Your task to perform on an android device: Open Youtube and go to the subscriptions tab Image 0: 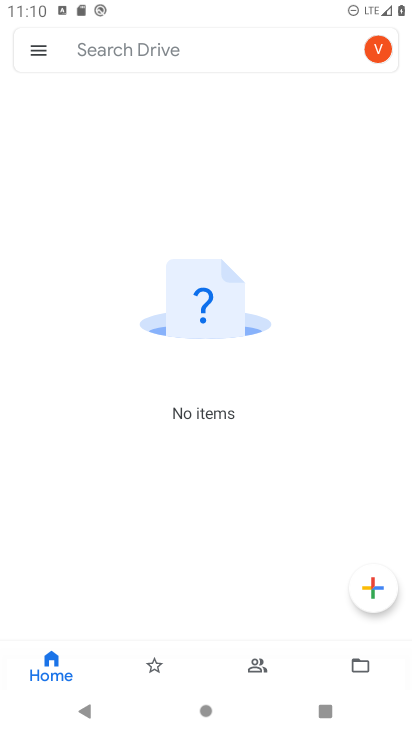
Step 0: press home button
Your task to perform on an android device: Open Youtube and go to the subscriptions tab Image 1: 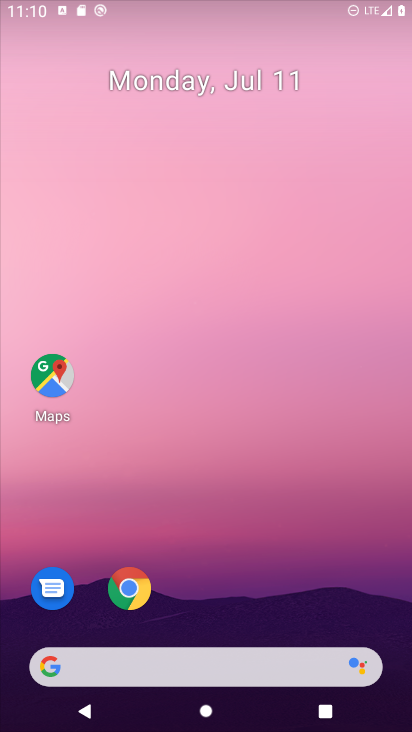
Step 1: drag from (386, 656) to (243, 5)
Your task to perform on an android device: Open Youtube and go to the subscriptions tab Image 2: 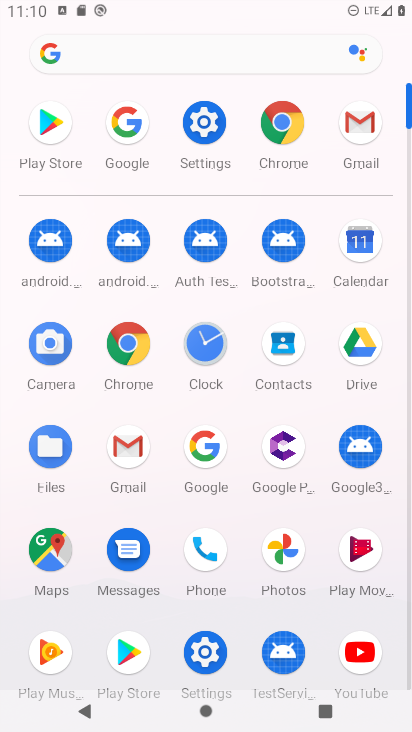
Step 2: click (358, 666)
Your task to perform on an android device: Open Youtube and go to the subscriptions tab Image 3: 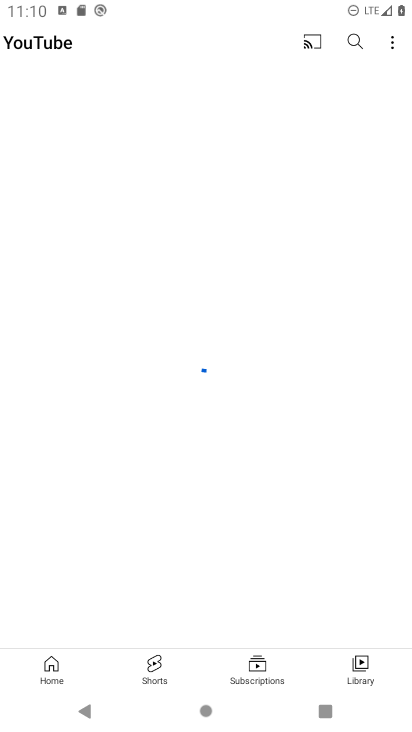
Step 3: click (254, 665)
Your task to perform on an android device: Open Youtube and go to the subscriptions tab Image 4: 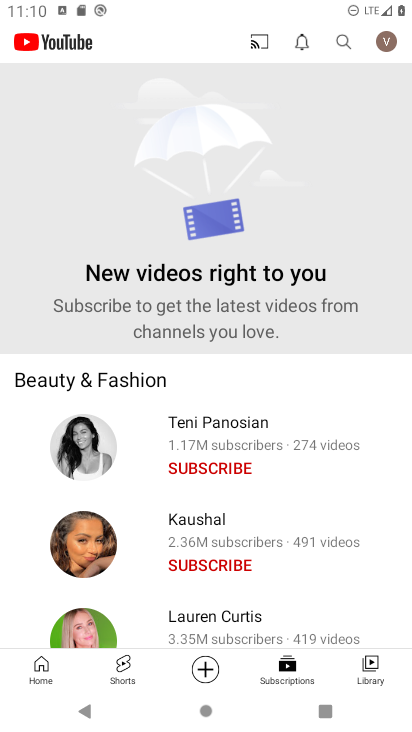
Step 4: task complete